Your task to perform on an android device: allow cookies in the chrome app Image 0: 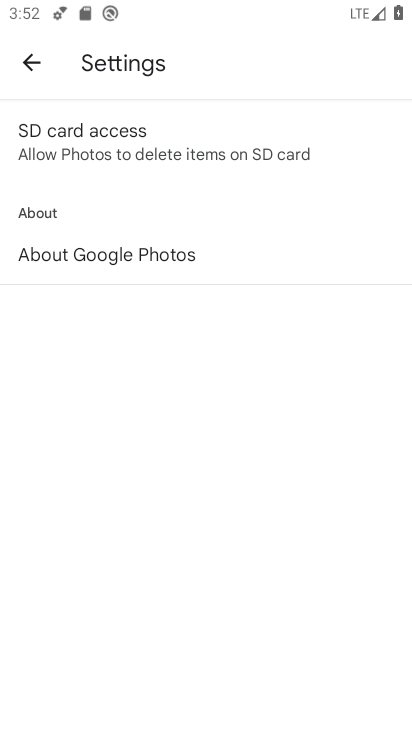
Step 0: press home button
Your task to perform on an android device: allow cookies in the chrome app Image 1: 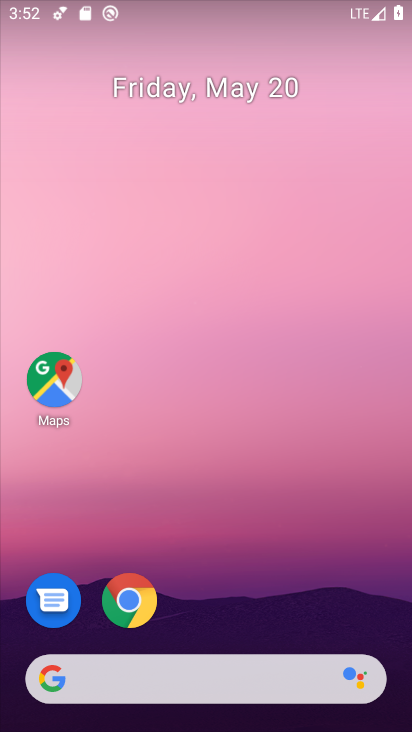
Step 1: drag from (323, 628) to (320, 299)
Your task to perform on an android device: allow cookies in the chrome app Image 2: 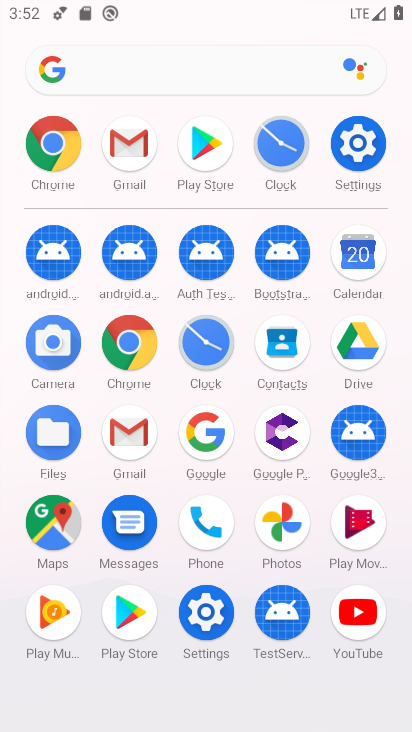
Step 2: click (127, 352)
Your task to perform on an android device: allow cookies in the chrome app Image 3: 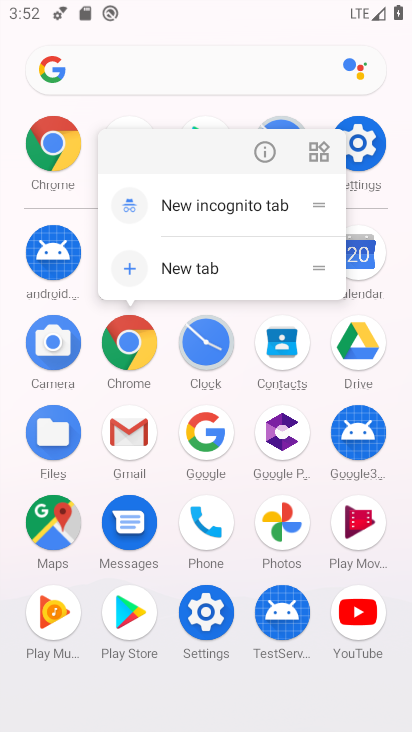
Step 3: click (127, 352)
Your task to perform on an android device: allow cookies in the chrome app Image 4: 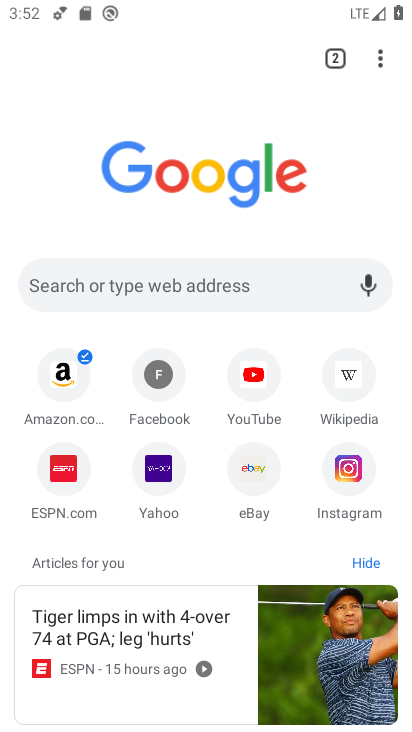
Step 4: click (380, 64)
Your task to perform on an android device: allow cookies in the chrome app Image 5: 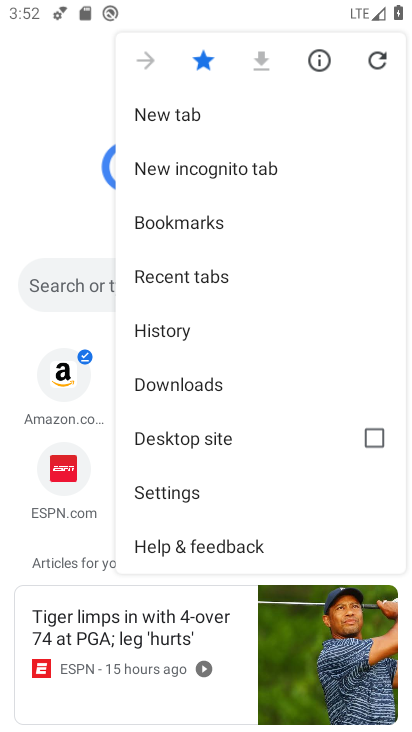
Step 5: click (204, 499)
Your task to perform on an android device: allow cookies in the chrome app Image 6: 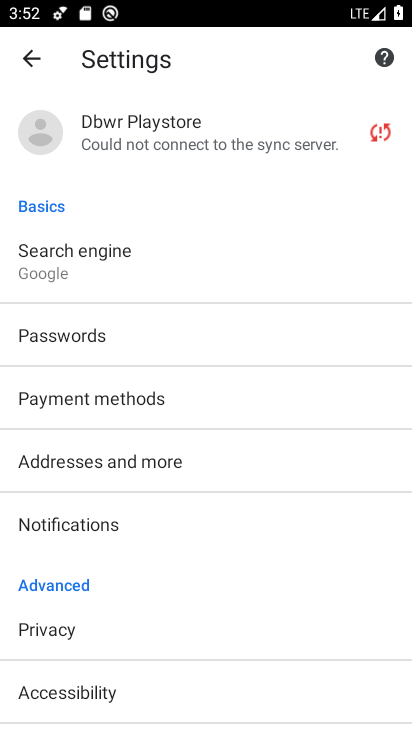
Step 6: drag from (253, 587) to (265, 469)
Your task to perform on an android device: allow cookies in the chrome app Image 7: 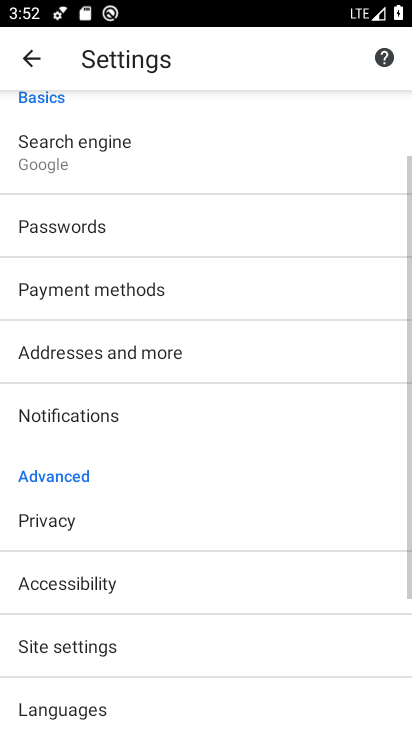
Step 7: drag from (287, 635) to (291, 551)
Your task to perform on an android device: allow cookies in the chrome app Image 8: 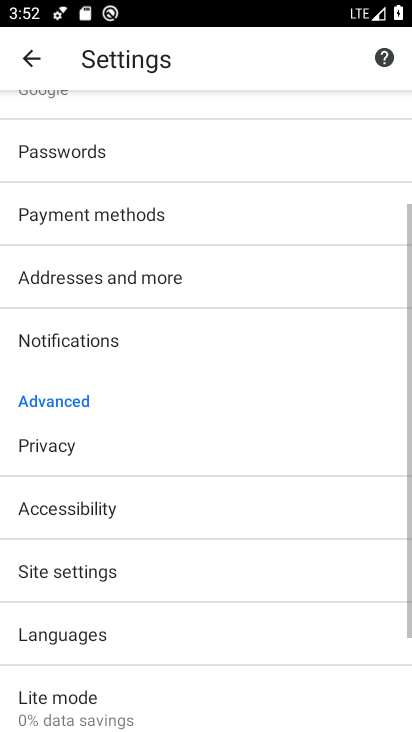
Step 8: drag from (298, 644) to (297, 563)
Your task to perform on an android device: allow cookies in the chrome app Image 9: 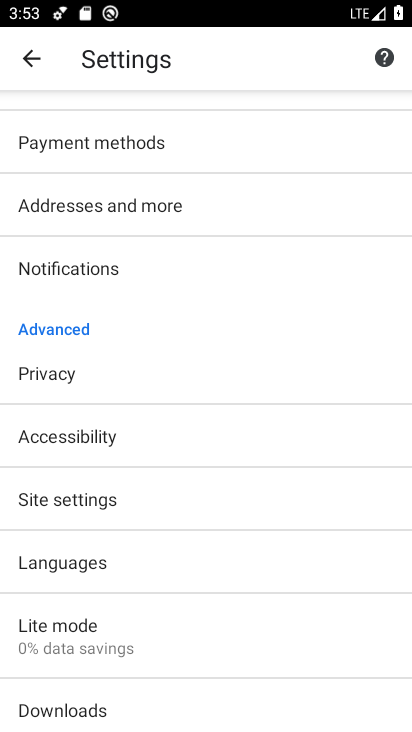
Step 9: drag from (290, 667) to (290, 575)
Your task to perform on an android device: allow cookies in the chrome app Image 10: 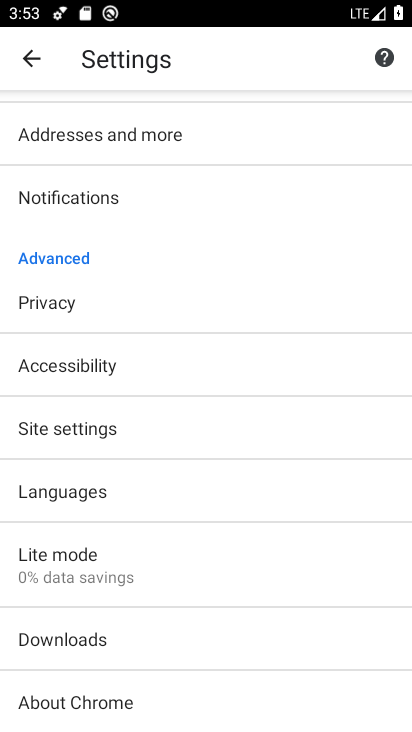
Step 10: drag from (308, 684) to (315, 593)
Your task to perform on an android device: allow cookies in the chrome app Image 11: 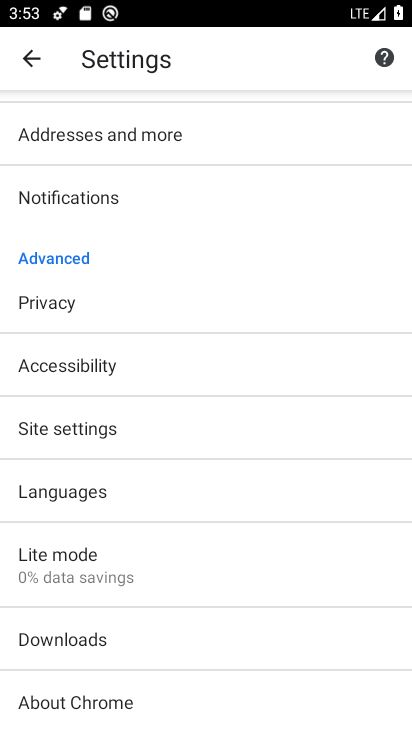
Step 11: drag from (325, 509) to (326, 592)
Your task to perform on an android device: allow cookies in the chrome app Image 12: 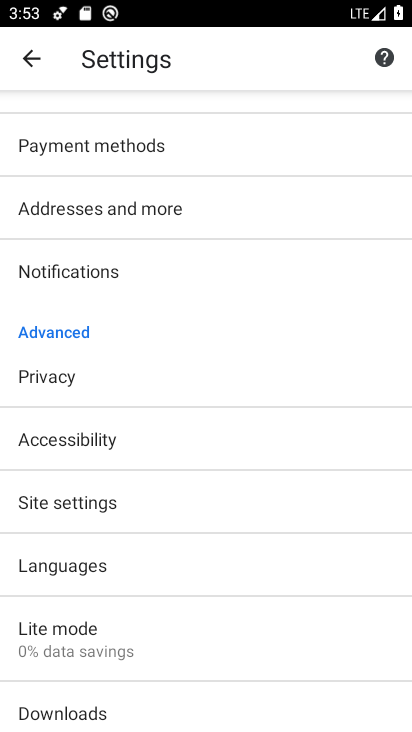
Step 12: drag from (328, 508) to (328, 583)
Your task to perform on an android device: allow cookies in the chrome app Image 13: 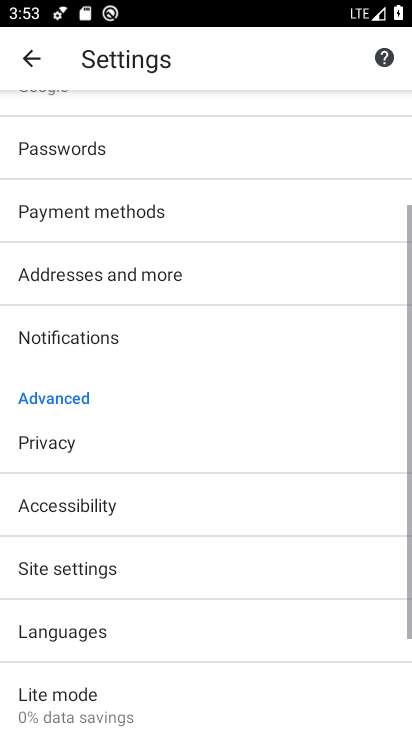
Step 13: drag from (323, 510) to (323, 567)
Your task to perform on an android device: allow cookies in the chrome app Image 14: 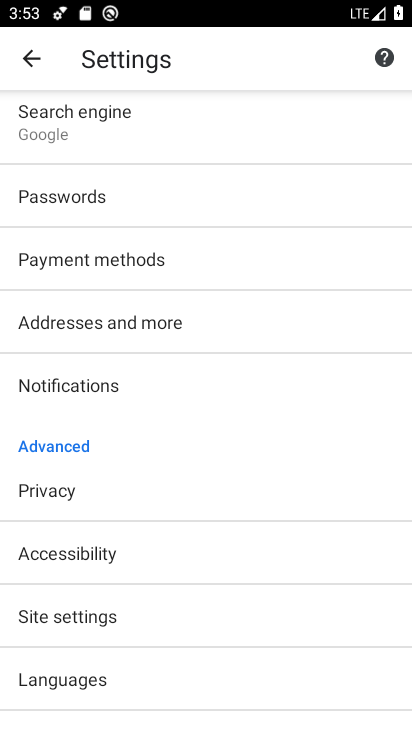
Step 14: click (303, 615)
Your task to perform on an android device: allow cookies in the chrome app Image 15: 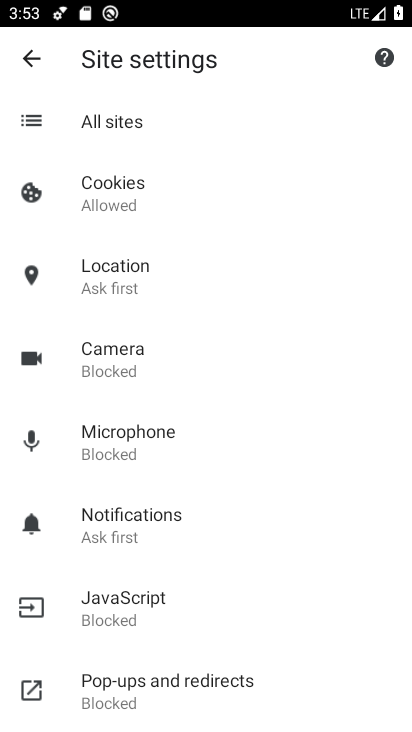
Step 15: drag from (319, 587) to (319, 524)
Your task to perform on an android device: allow cookies in the chrome app Image 16: 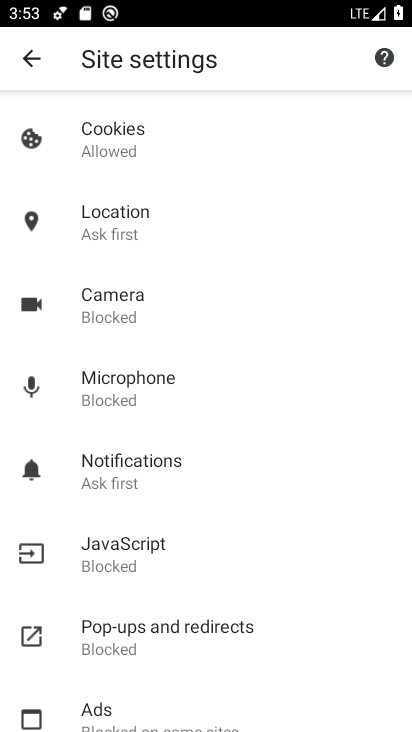
Step 16: drag from (318, 647) to (318, 589)
Your task to perform on an android device: allow cookies in the chrome app Image 17: 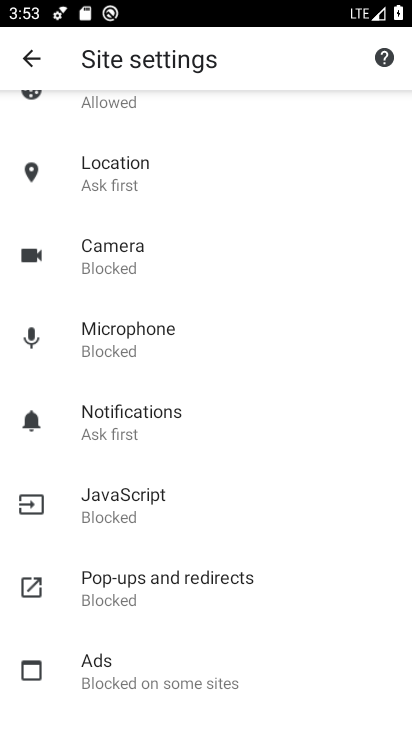
Step 17: drag from (302, 628) to (293, 540)
Your task to perform on an android device: allow cookies in the chrome app Image 18: 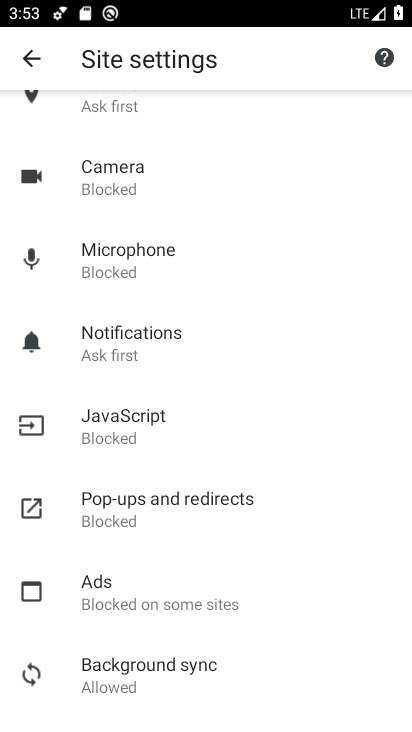
Step 18: drag from (319, 436) to (318, 535)
Your task to perform on an android device: allow cookies in the chrome app Image 19: 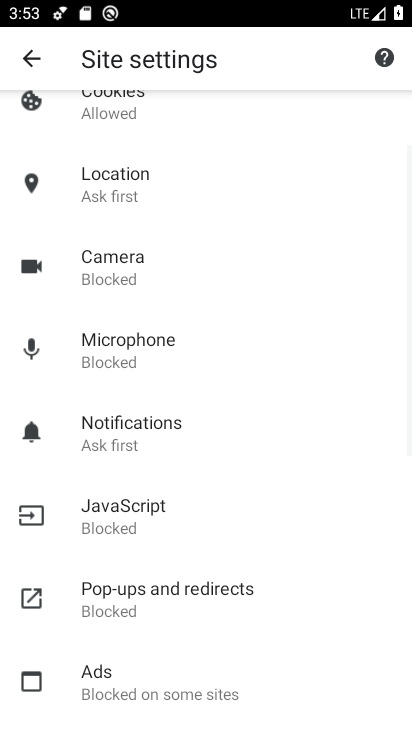
Step 19: drag from (318, 420) to (321, 515)
Your task to perform on an android device: allow cookies in the chrome app Image 20: 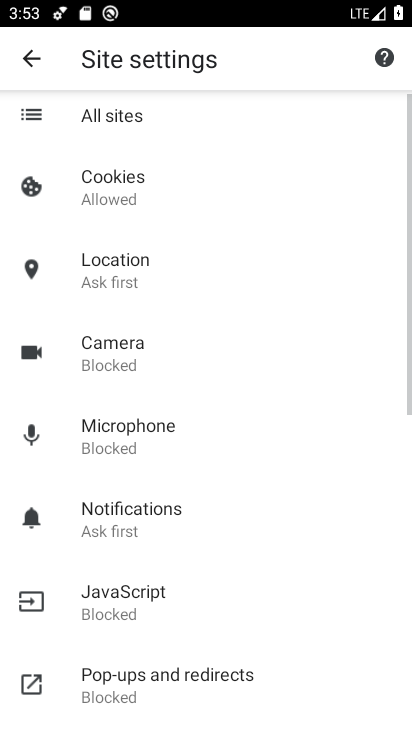
Step 20: drag from (318, 395) to (323, 509)
Your task to perform on an android device: allow cookies in the chrome app Image 21: 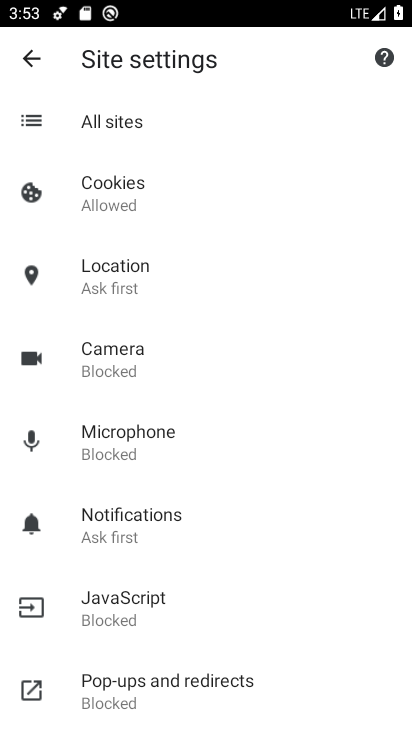
Step 21: click (197, 217)
Your task to perform on an android device: allow cookies in the chrome app Image 22: 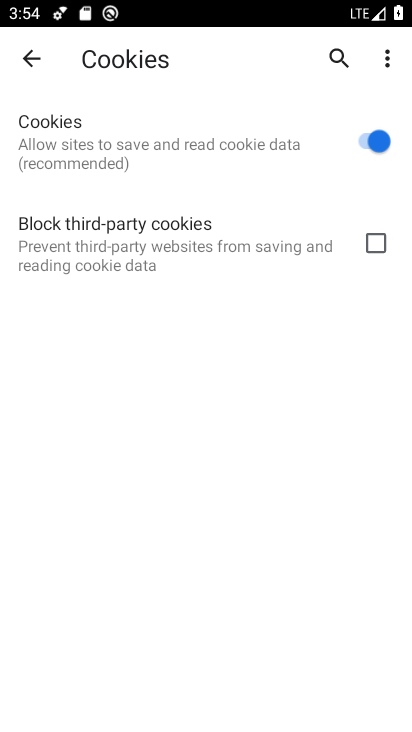
Step 22: task complete